Your task to perform on an android device: Open settings Image 0: 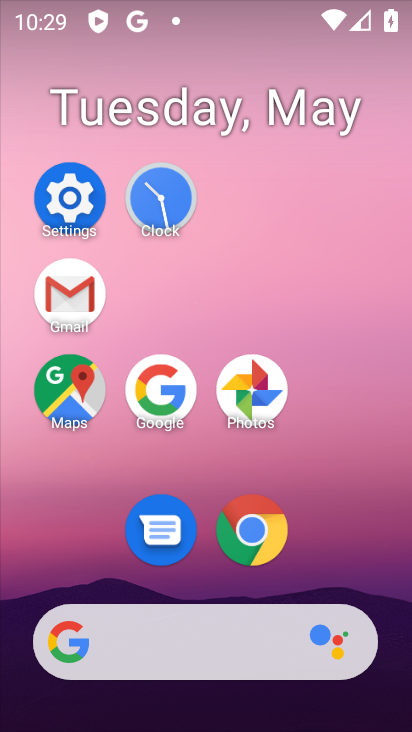
Step 0: click (91, 185)
Your task to perform on an android device: Open settings Image 1: 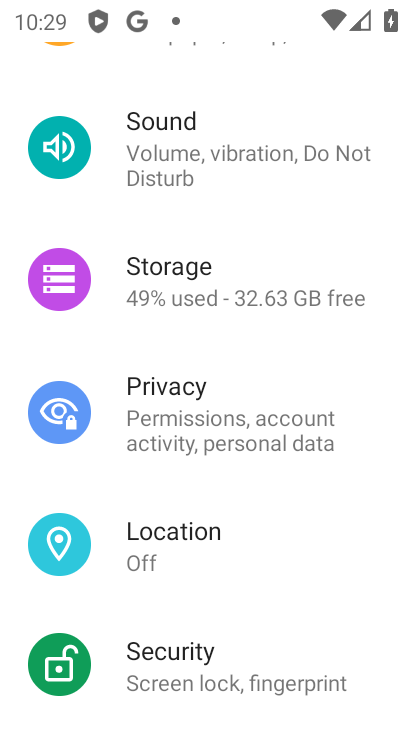
Step 1: task complete